Your task to perform on an android device: turn on wifi Image 0: 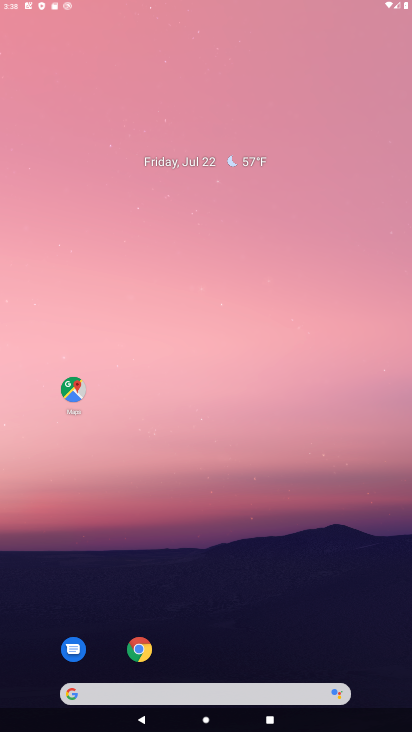
Step 0: click (112, 695)
Your task to perform on an android device: turn on wifi Image 1: 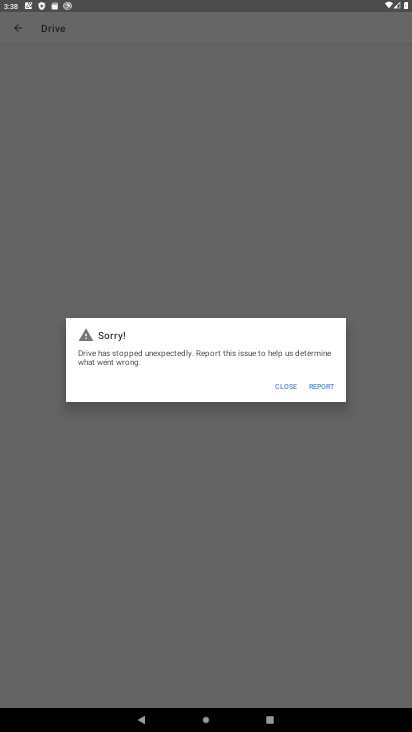
Step 1: press home button
Your task to perform on an android device: turn on wifi Image 2: 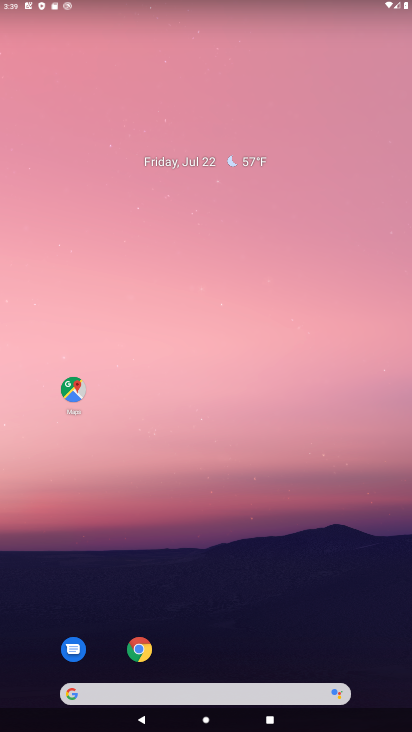
Step 2: drag from (19, 682) to (289, 77)
Your task to perform on an android device: turn on wifi Image 3: 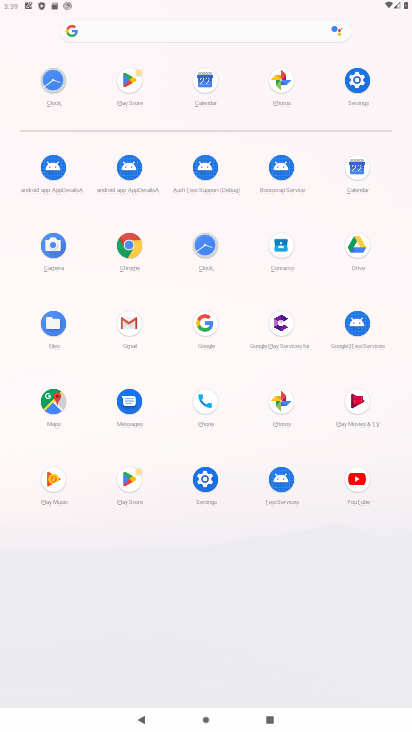
Step 3: click (192, 466)
Your task to perform on an android device: turn on wifi Image 4: 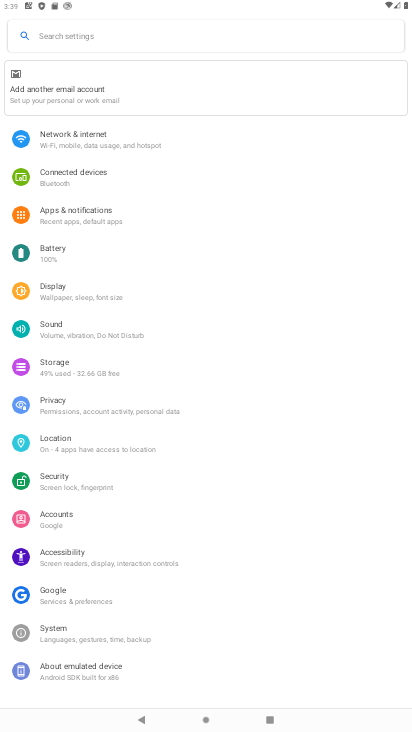
Step 4: click (77, 144)
Your task to perform on an android device: turn on wifi Image 5: 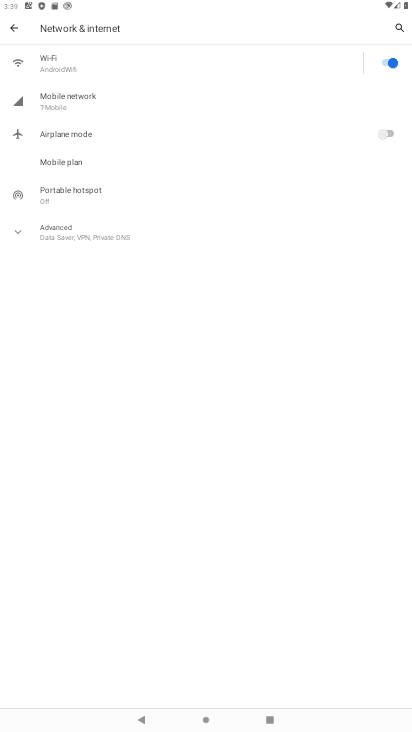
Step 5: task complete